Your task to perform on an android device: turn on the 12-hour format for clock Image 0: 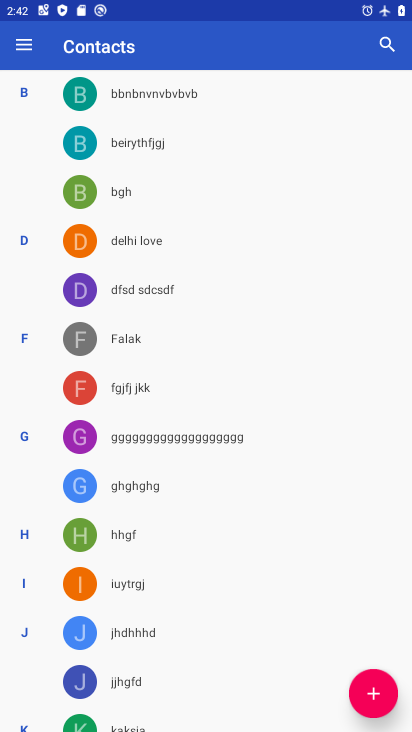
Step 0: press home button
Your task to perform on an android device: turn on the 12-hour format for clock Image 1: 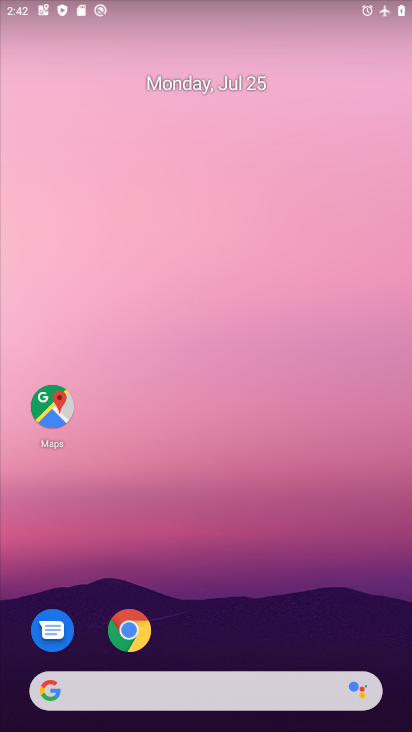
Step 1: drag from (319, 643) to (296, 87)
Your task to perform on an android device: turn on the 12-hour format for clock Image 2: 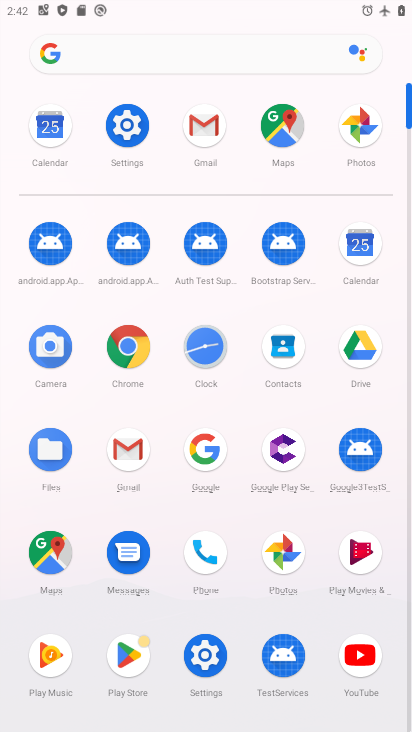
Step 2: click (199, 329)
Your task to perform on an android device: turn on the 12-hour format for clock Image 3: 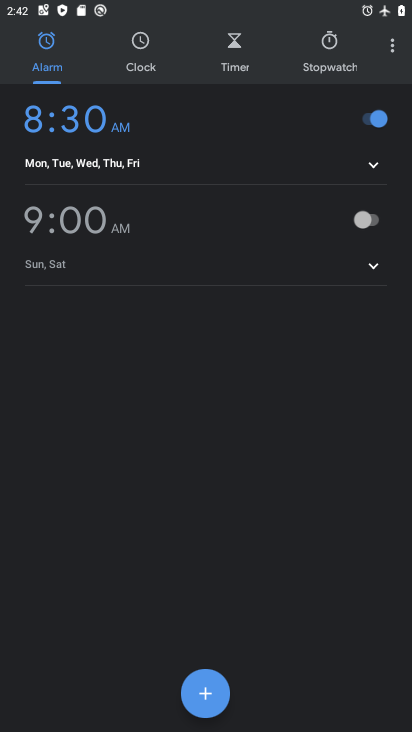
Step 3: click (382, 55)
Your task to perform on an android device: turn on the 12-hour format for clock Image 4: 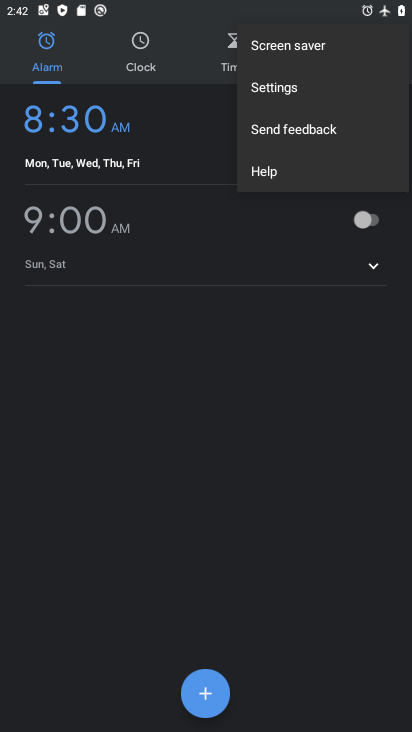
Step 4: click (253, 78)
Your task to perform on an android device: turn on the 12-hour format for clock Image 5: 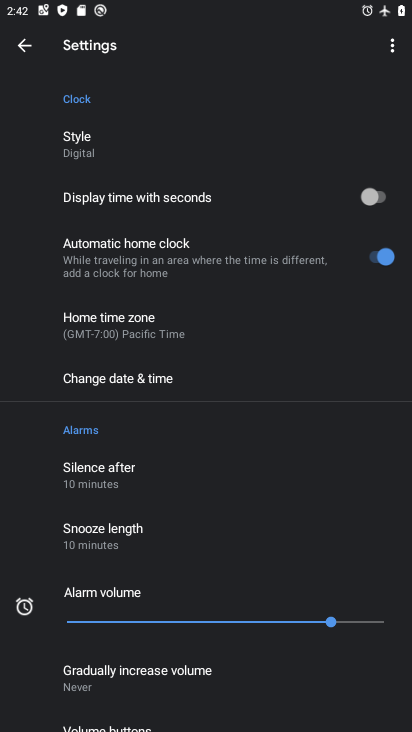
Step 5: task complete